Your task to perform on an android device: turn off wifi Image 0: 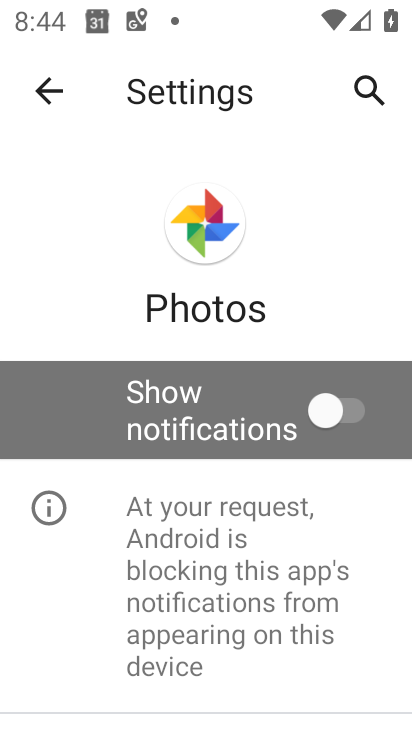
Step 0: press home button
Your task to perform on an android device: turn off wifi Image 1: 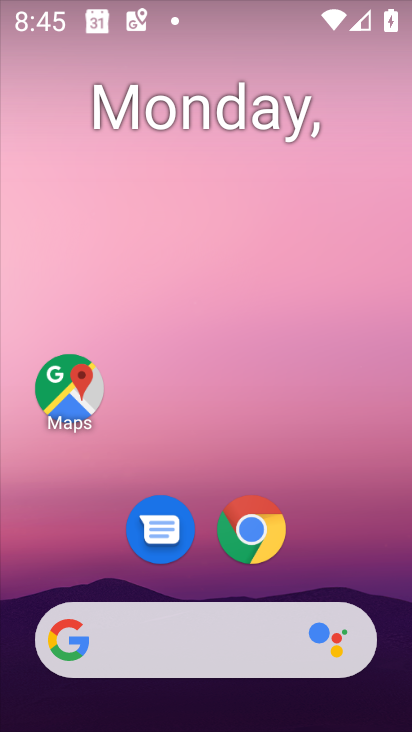
Step 1: drag from (31, 694) to (270, 149)
Your task to perform on an android device: turn off wifi Image 2: 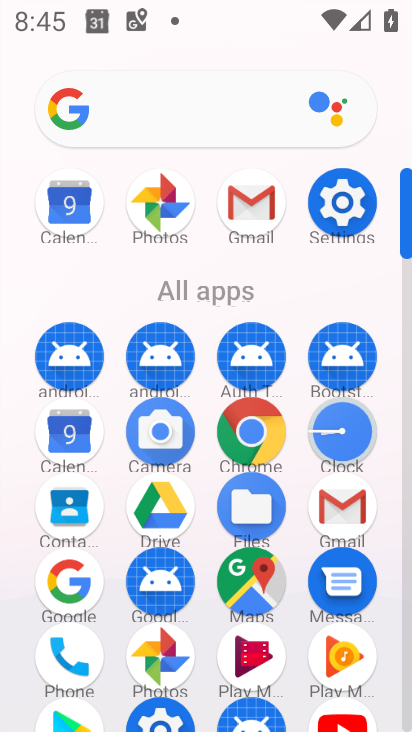
Step 2: click (314, 195)
Your task to perform on an android device: turn off wifi Image 3: 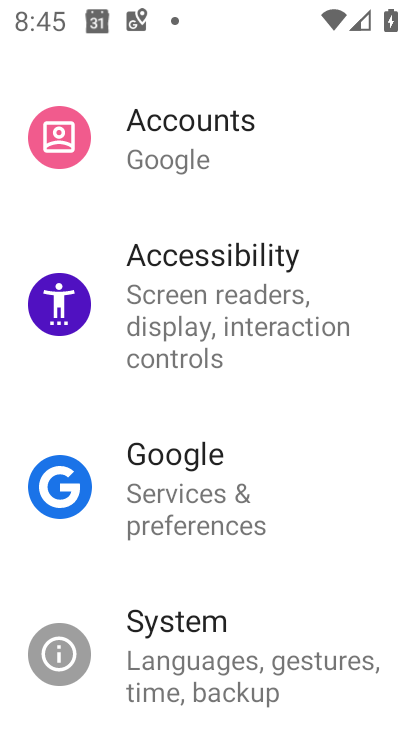
Step 3: drag from (238, 136) to (208, 565)
Your task to perform on an android device: turn off wifi Image 4: 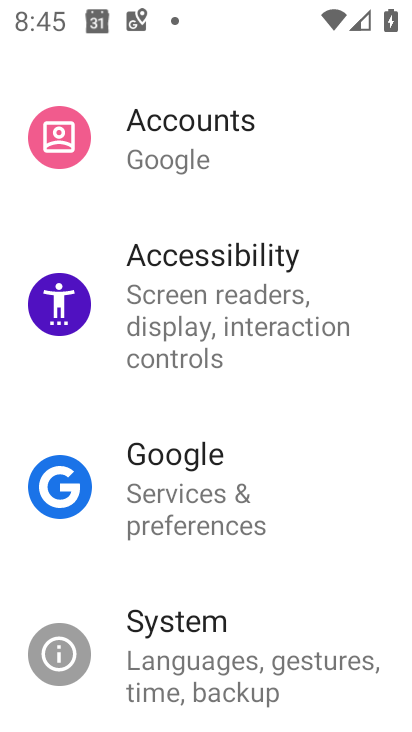
Step 4: drag from (274, 210) to (241, 608)
Your task to perform on an android device: turn off wifi Image 5: 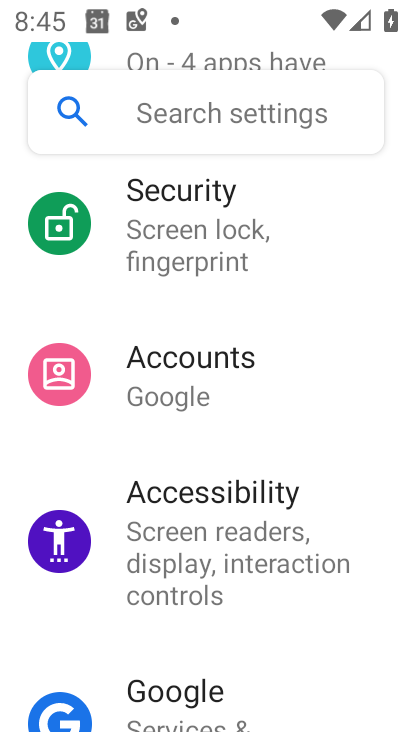
Step 5: drag from (257, 194) to (204, 646)
Your task to perform on an android device: turn off wifi Image 6: 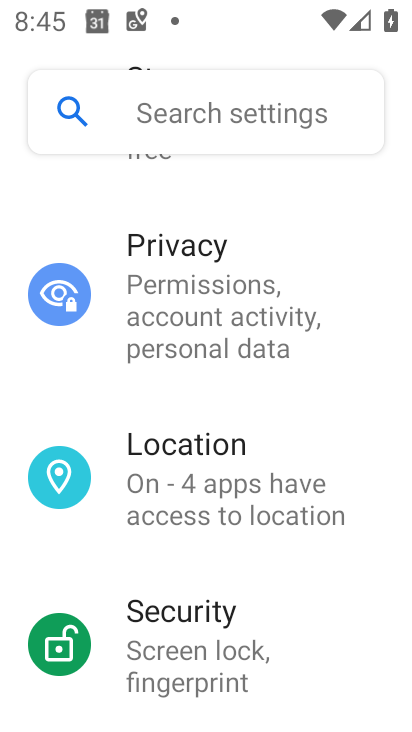
Step 6: drag from (274, 302) to (245, 619)
Your task to perform on an android device: turn off wifi Image 7: 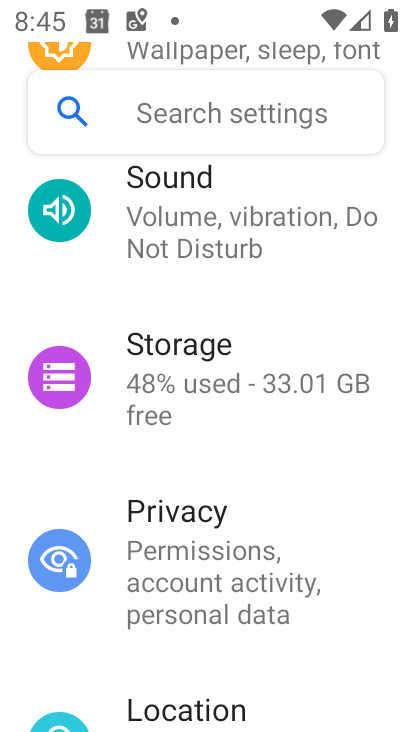
Step 7: drag from (264, 272) to (186, 635)
Your task to perform on an android device: turn off wifi Image 8: 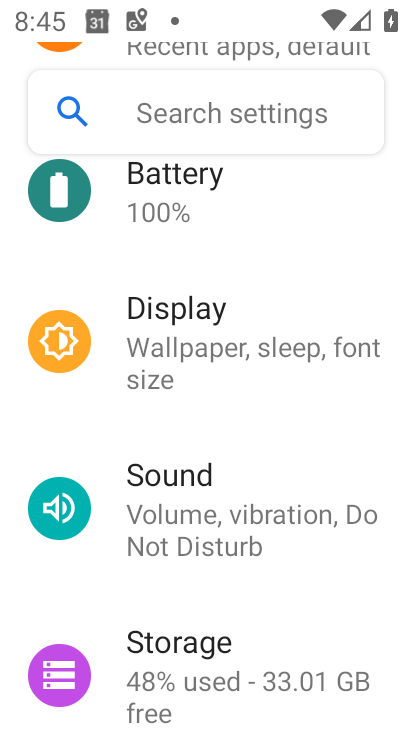
Step 8: drag from (239, 266) to (180, 627)
Your task to perform on an android device: turn off wifi Image 9: 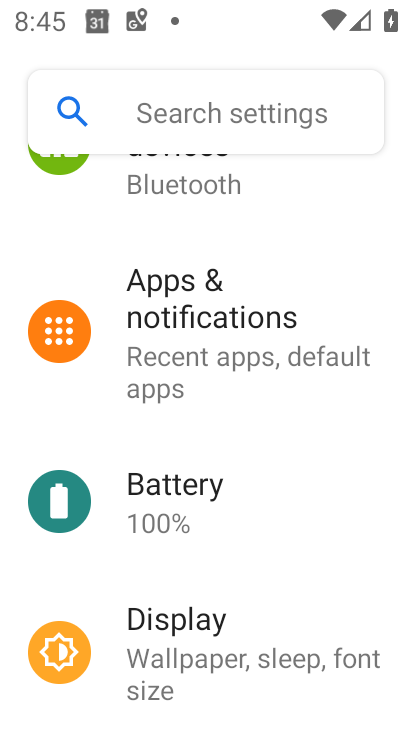
Step 9: drag from (250, 251) to (200, 613)
Your task to perform on an android device: turn off wifi Image 10: 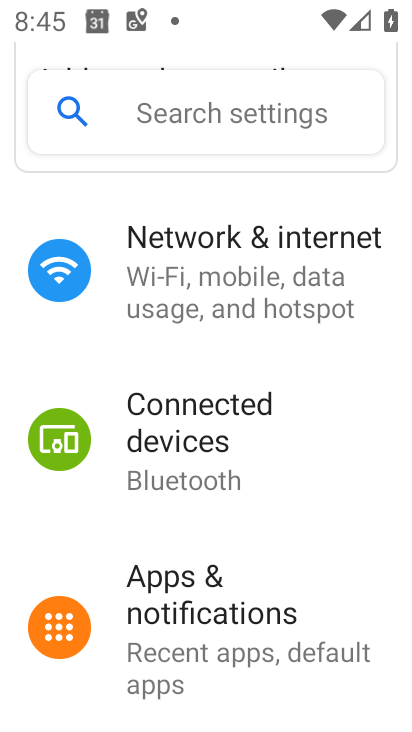
Step 10: click (220, 296)
Your task to perform on an android device: turn off wifi Image 11: 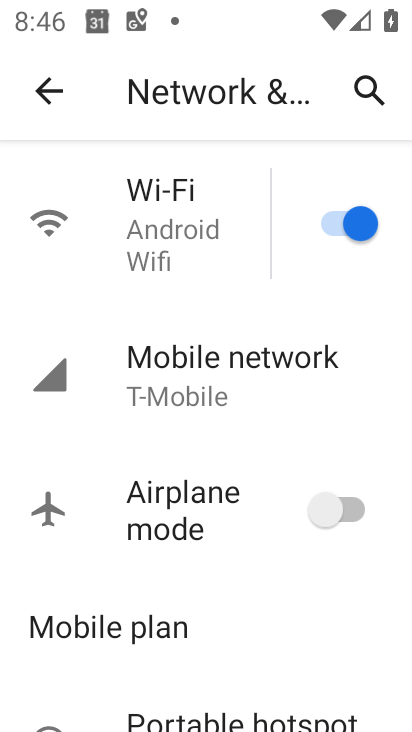
Step 11: click (372, 232)
Your task to perform on an android device: turn off wifi Image 12: 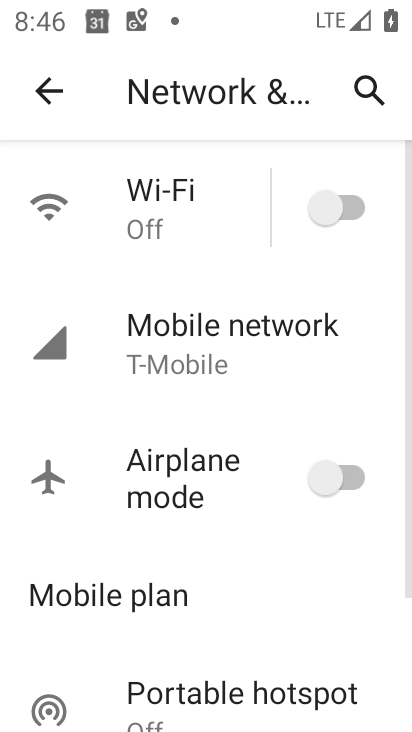
Step 12: task complete